Your task to perform on an android device: turn off airplane mode Image 0: 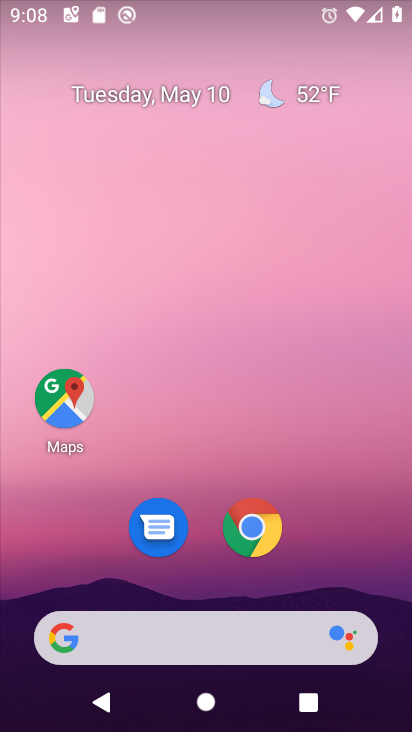
Step 0: drag from (170, 428) to (150, 141)
Your task to perform on an android device: turn off airplane mode Image 1: 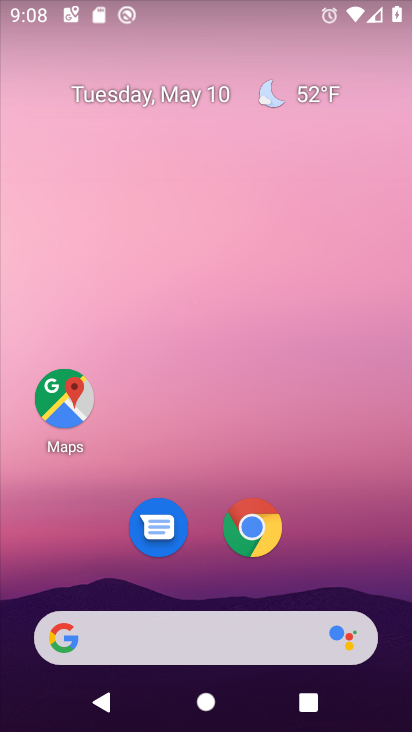
Step 1: drag from (347, 542) to (231, 77)
Your task to perform on an android device: turn off airplane mode Image 2: 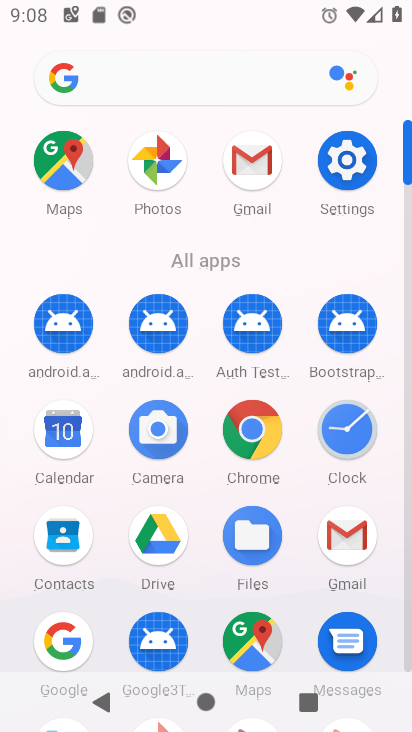
Step 2: click (346, 163)
Your task to perform on an android device: turn off airplane mode Image 3: 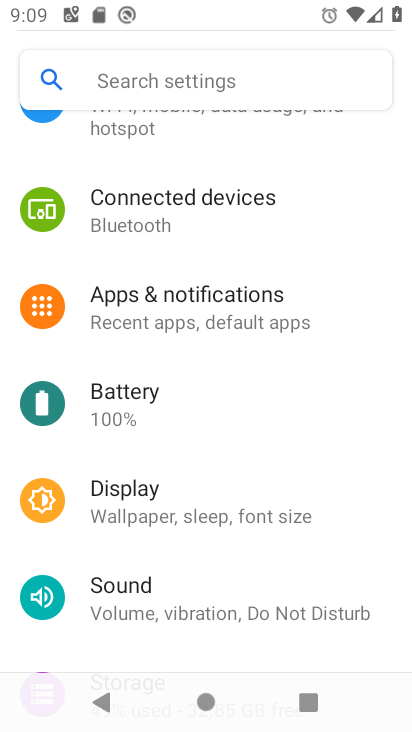
Step 3: drag from (141, 149) to (144, 415)
Your task to perform on an android device: turn off airplane mode Image 4: 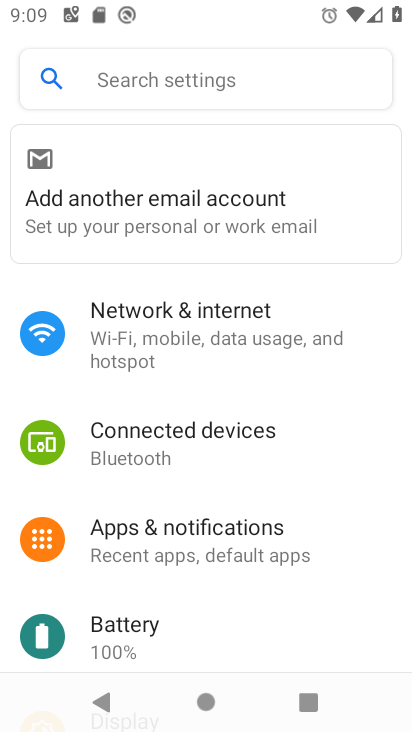
Step 4: click (121, 342)
Your task to perform on an android device: turn off airplane mode Image 5: 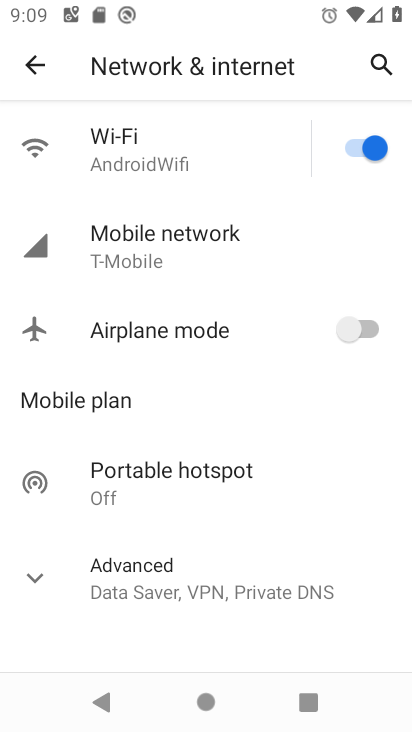
Step 5: task complete